Your task to perform on an android device: Open the calendar and show me this week's events? Image 0: 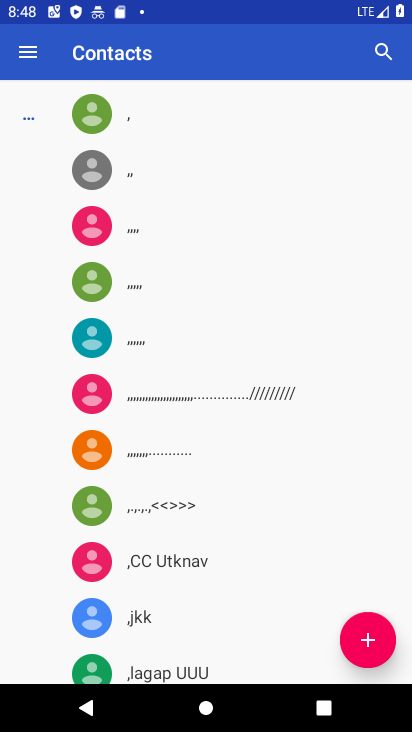
Step 0: press home button
Your task to perform on an android device: Open the calendar and show me this week's events? Image 1: 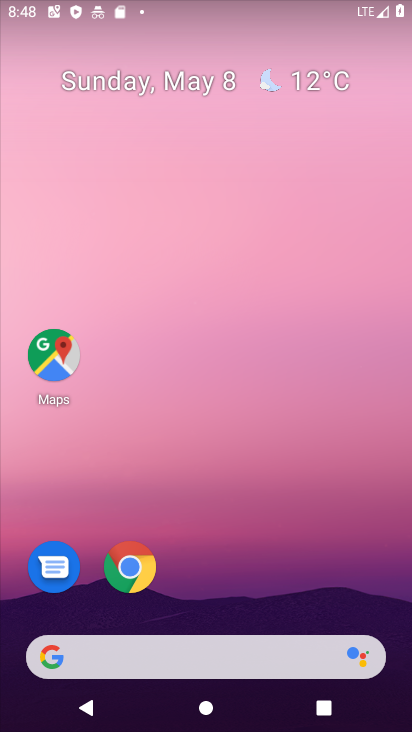
Step 1: drag from (217, 660) to (292, 163)
Your task to perform on an android device: Open the calendar and show me this week's events? Image 2: 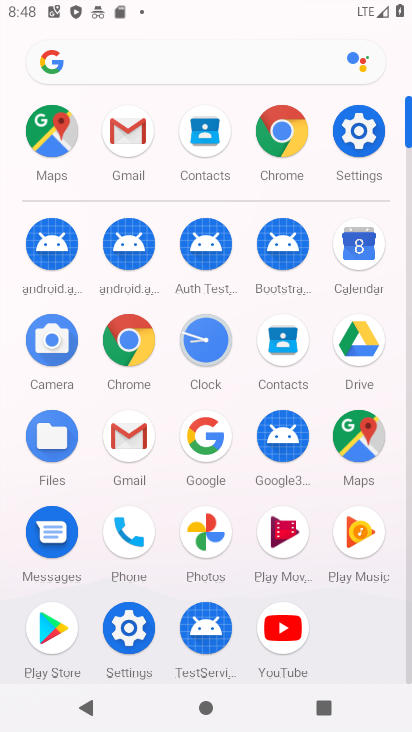
Step 2: click (360, 266)
Your task to perform on an android device: Open the calendar and show me this week's events? Image 3: 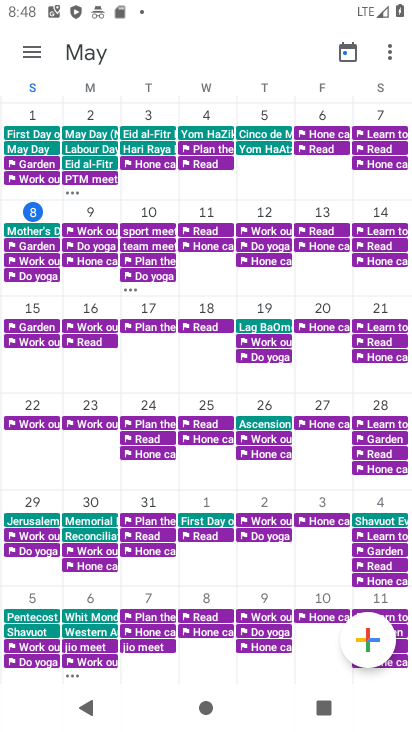
Step 3: click (29, 62)
Your task to perform on an android device: Open the calendar and show me this week's events? Image 4: 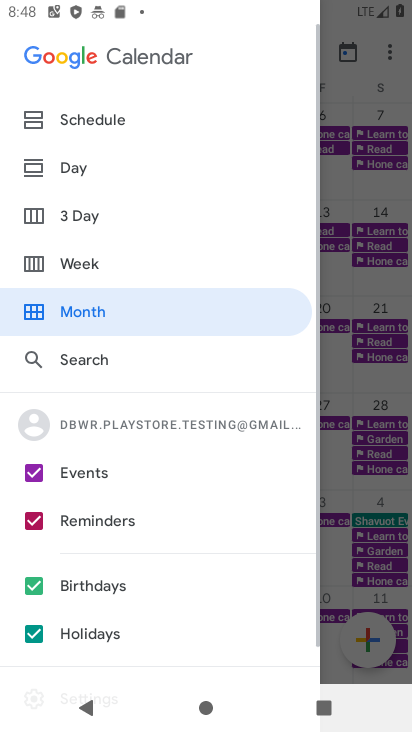
Step 4: click (91, 275)
Your task to perform on an android device: Open the calendar and show me this week's events? Image 5: 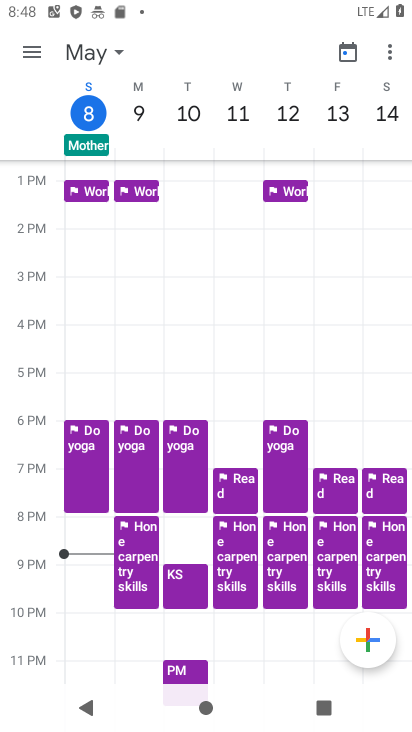
Step 5: task complete